Your task to perform on an android device: Open internet settings Image 0: 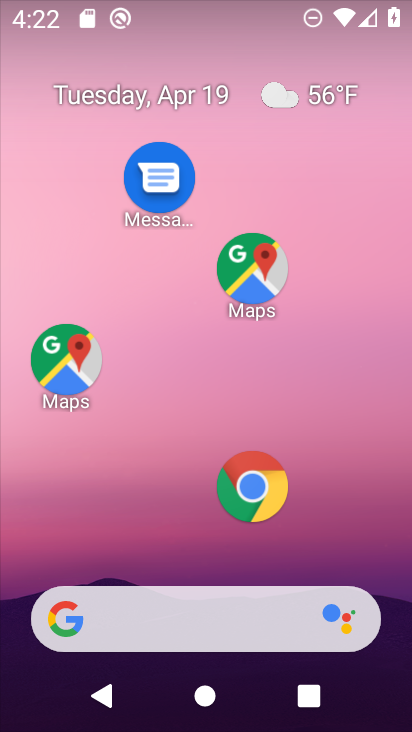
Step 0: drag from (111, 526) to (228, 3)
Your task to perform on an android device: Open internet settings Image 1: 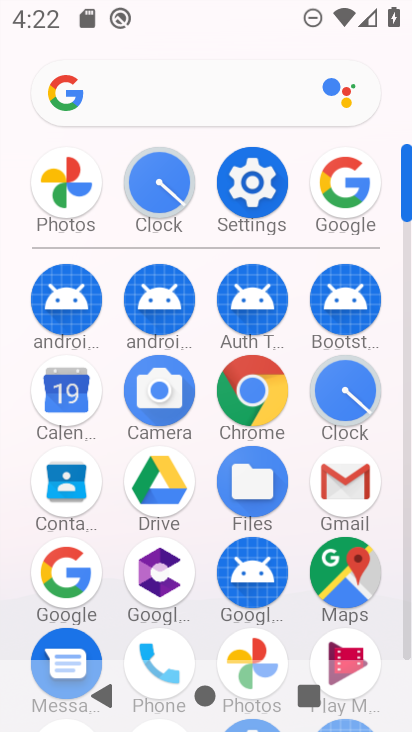
Step 1: click (245, 190)
Your task to perform on an android device: Open internet settings Image 2: 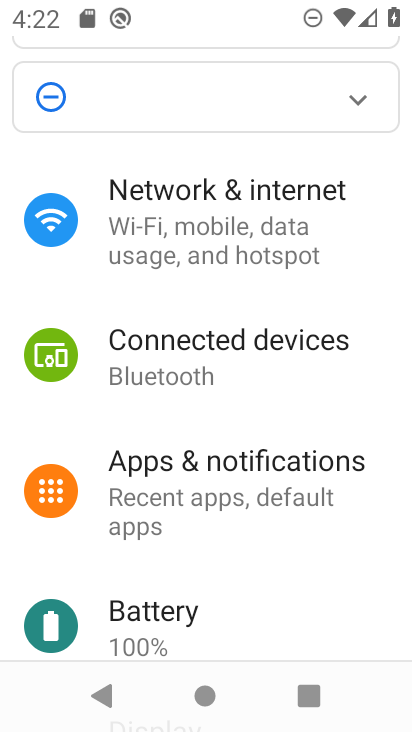
Step 2: click (264, 266)
Your task to perform on an android device: Open internet settings Image 3: 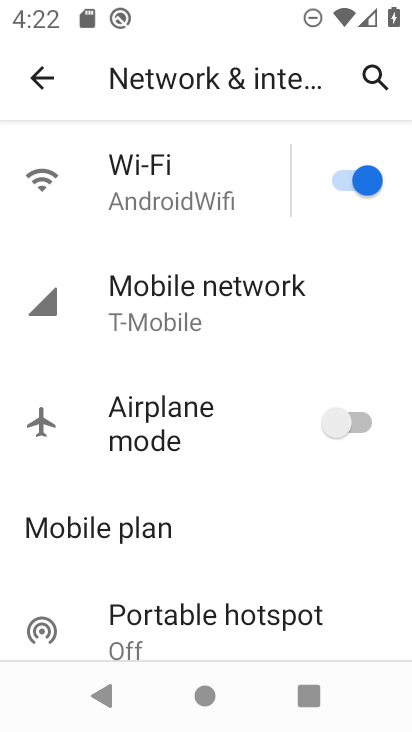
Step 3: task complete